Your task to perform on an android device: open a bookmark in the chrome app Image 0: 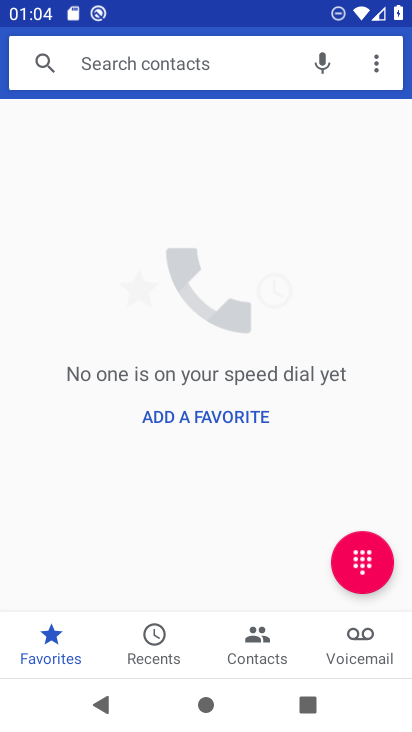
Step 0: press home button
Your task to perform on an android device: open a bookmark in the chrome app Image 1: 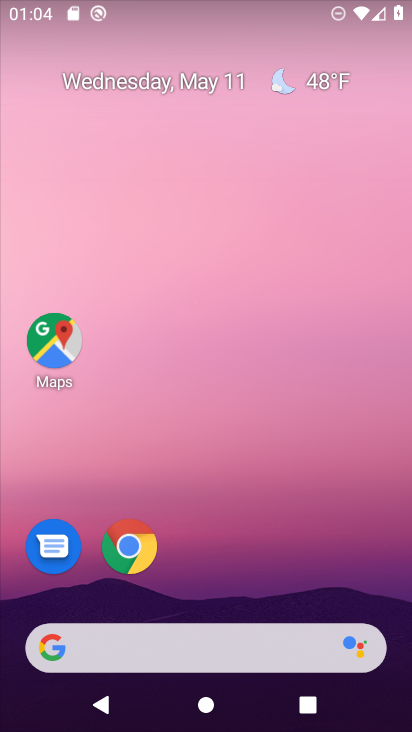
Step 1: click (149, 544)
Your task to perform on an android device: open a bookmark in the chrome app Image 2: 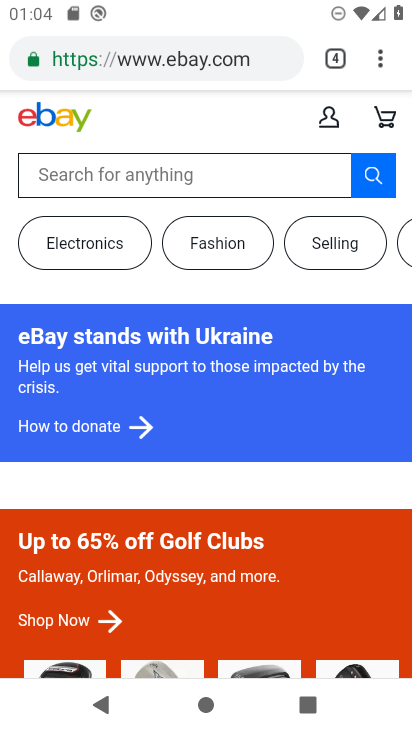
Step 2: task complete